Your task to perform on an android device: open a bookmark in the chrome app Image 0: 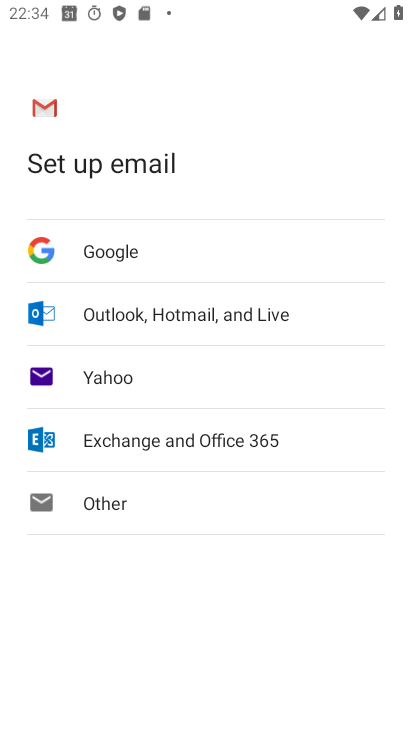
Step 0: press home button
Your task to perform on an android device: open a bookmark in the chrome app Image 1: 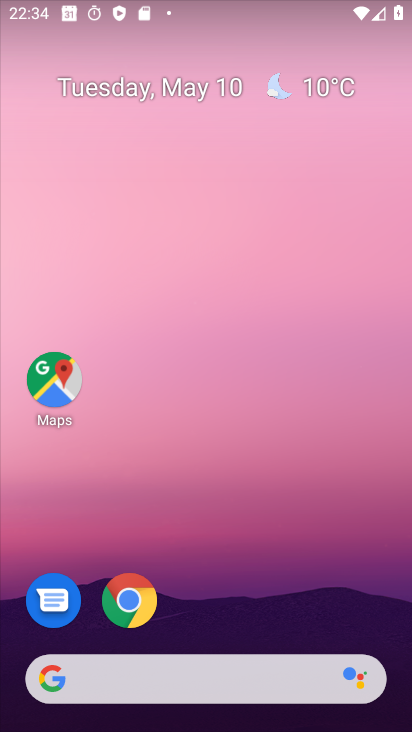
Step 1: drag from (329, 586) to (282, 231)
Your task to perform on an android device: open a bookmark in the chrome app Image 2: 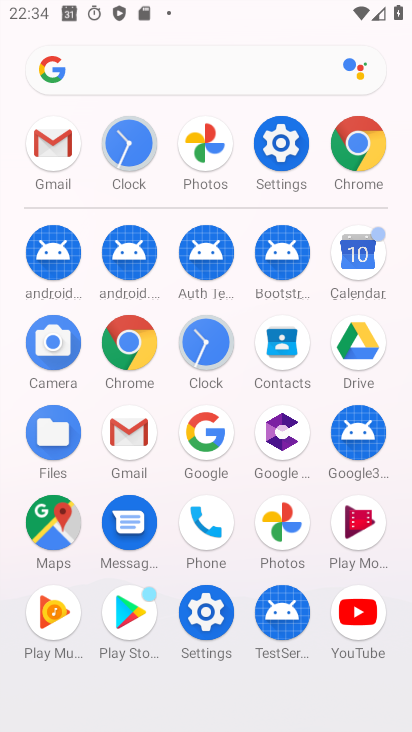
Step 2: click (376, 134)
Your task to perform on an android device: open a bookmark in the chrome app Image 3: 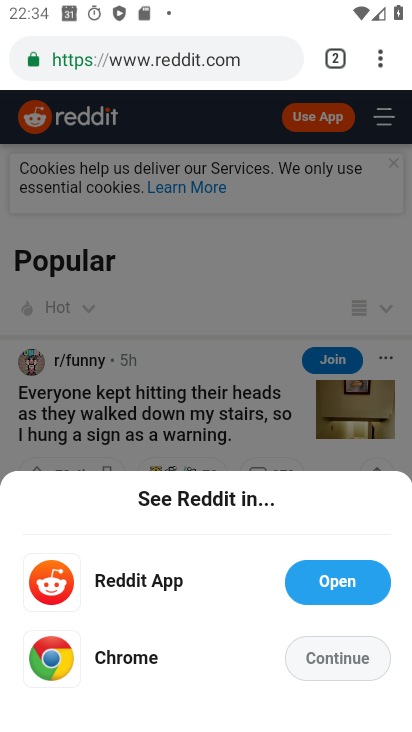
Step 3: task complete